Your task to perform on an android device: toggle notification dots Image 0: 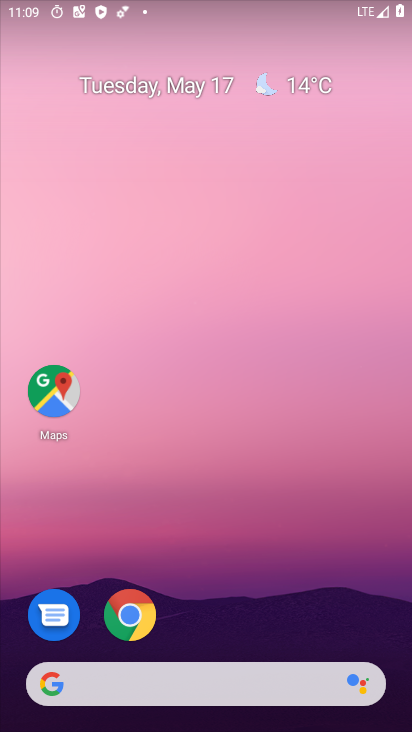
Step 0: press home button
Your task to perform on an android device: toggle notification dots Image 1: 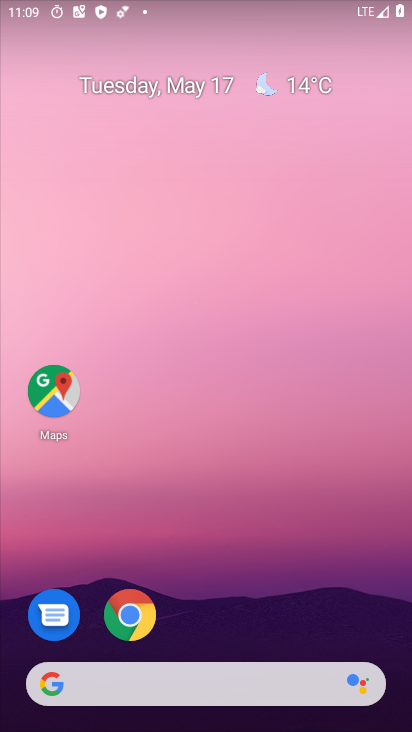
Step 1: drag from (212, 687) to (334, 98)
Your task to perform on an android device: toggle notification dots Image 2: 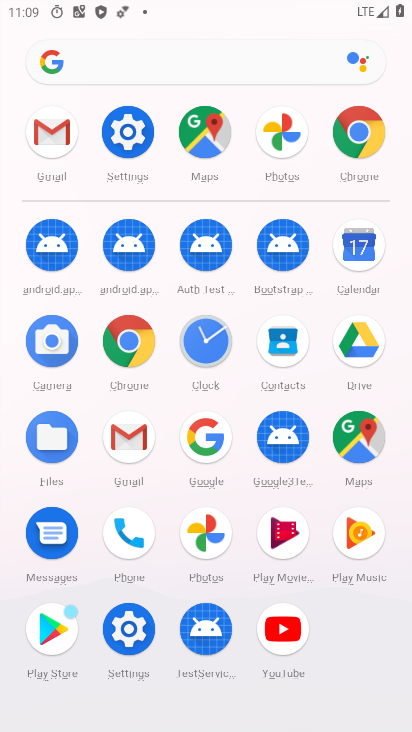
Step 2: click (130, 133)
Your task to perform on an android device: toggle notification dots Image 3: 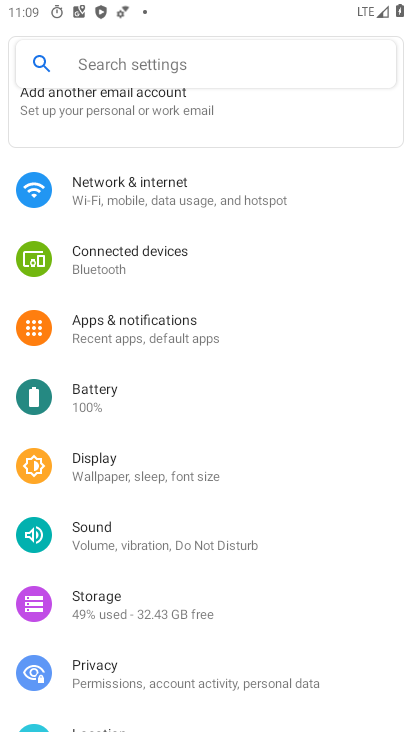
Step 3: click (178, 329)
Your task to perform on an android device: toggle notification dots Image 4: 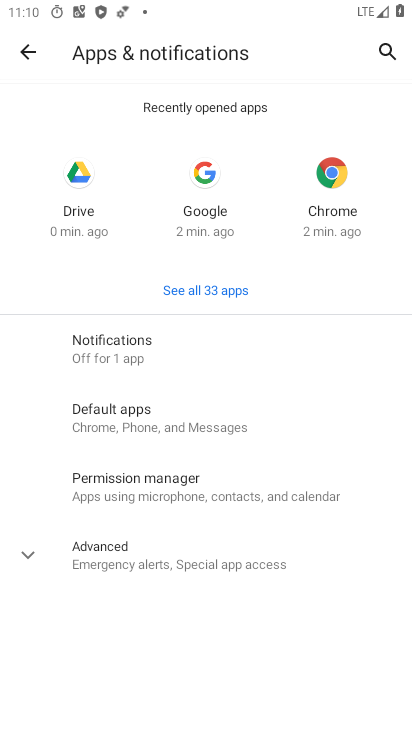
Step 4: click (132, 352)
Your task to perform on an android device: toggle notification dots Image 5: 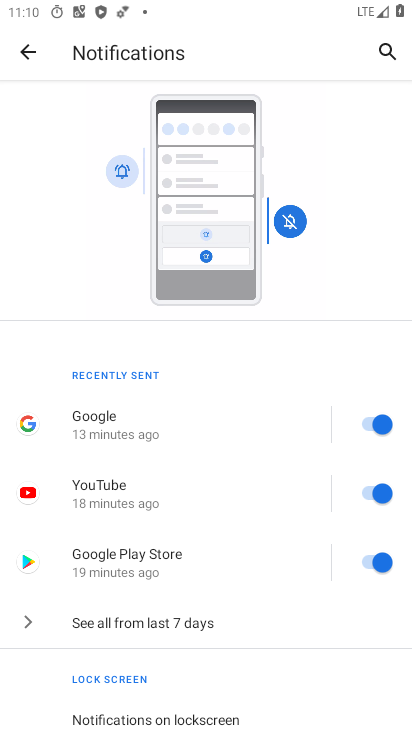
Step 5: drag from (228, 620) to (300, 280)
Your task to perform on an android device: toggle notification dots Image 6: 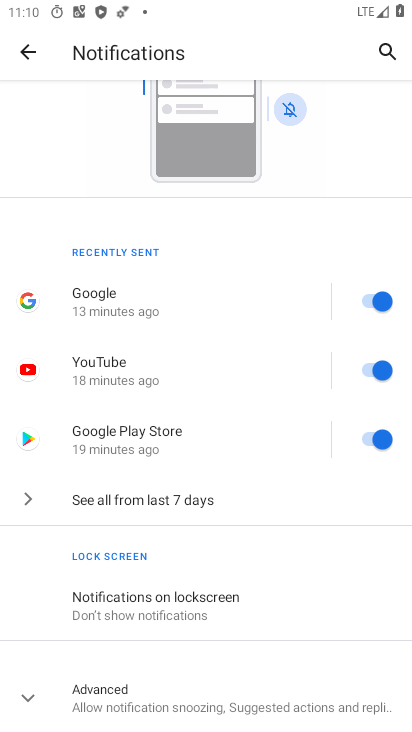
Step 6: click (132, 693)
Your task to perform on an android device: toggle notification dots Image 7: 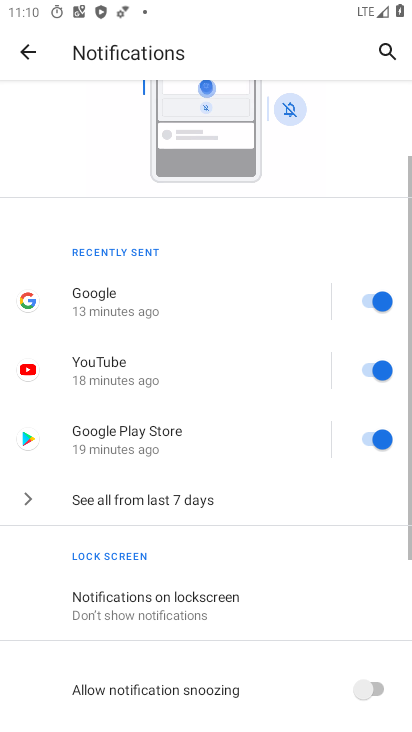
Step 7: drag from (220, 663) to (283, 224)
Your task to perform on an android device: toggle notification dots Image 8: 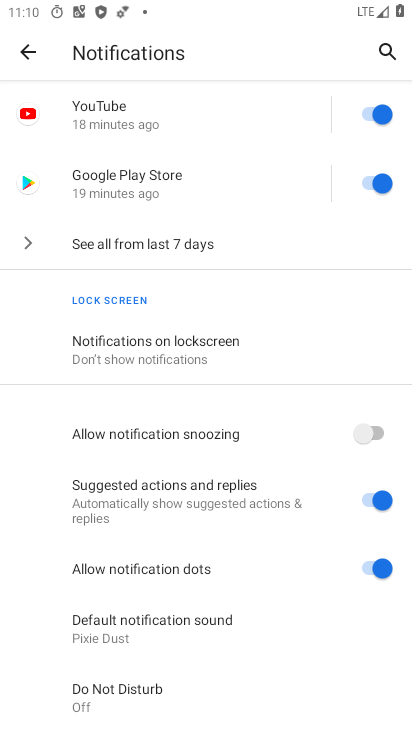
Step 8: click (367, 566)
Your task to perform on an android device: toggle notification dots Image 9: 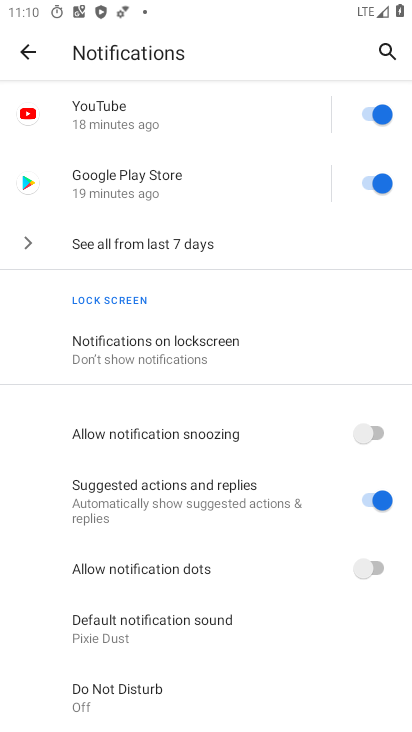
Step 9: task complete